Your task to perform on an android device: Open Google Maps Image 0: 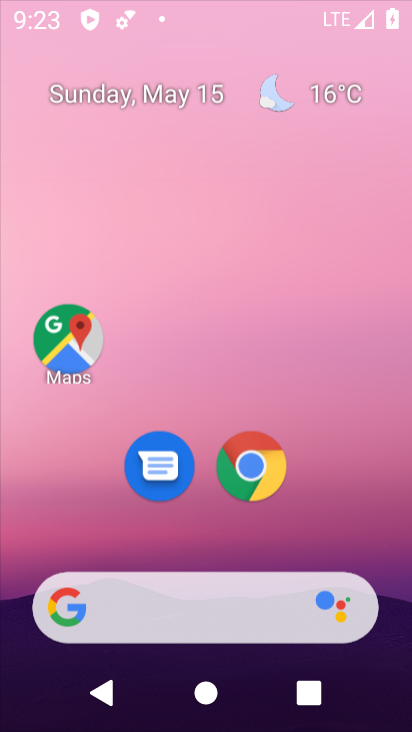
Step 0: click (389, 332)
Your task to perform on an android device: Open Google Maps Image 1: 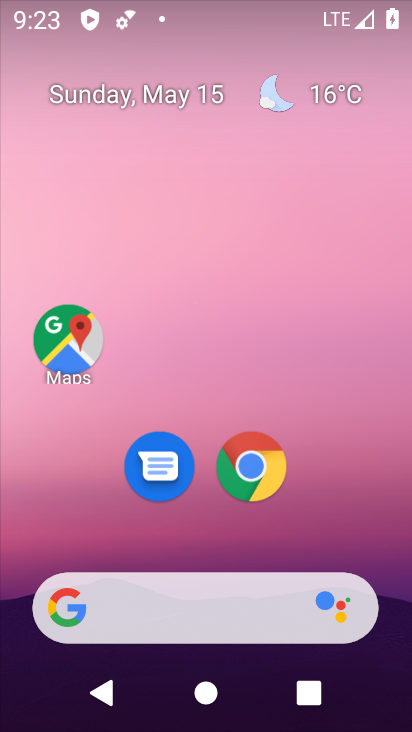
Step 1: click (81, 356)
Your task to perform on an android device: Open Google Maps Image 2: 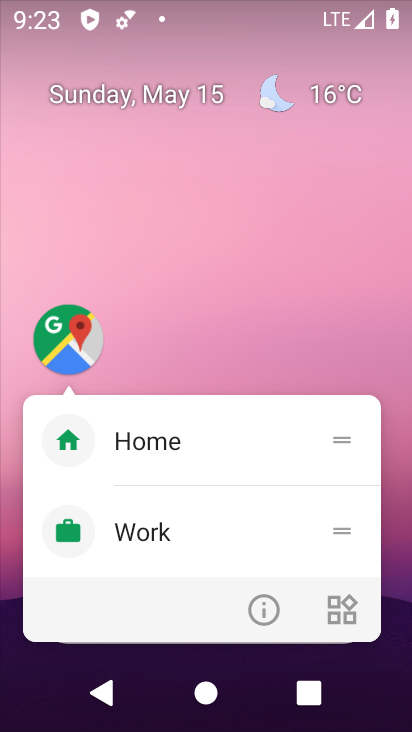
Step 2: click (79, 351)
Your task to perform on an android device: Open Google Maps Image 3: 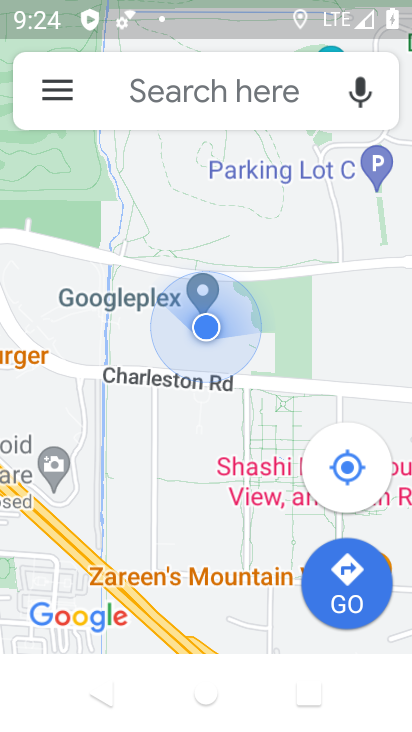
Step 3: task complete